Your task to perform on an android device: turn off data saver in the chrome app Image 0: 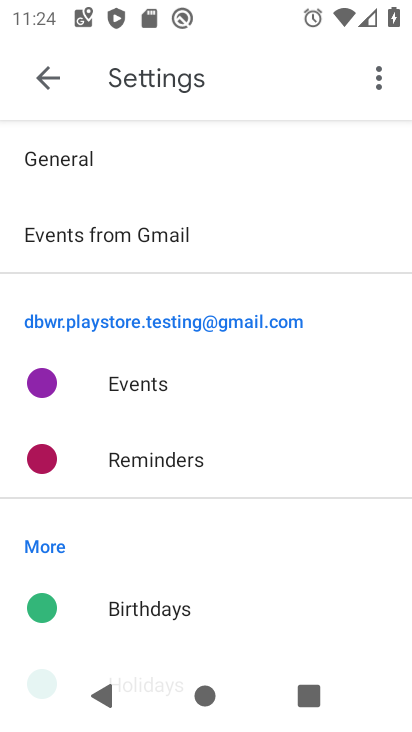
Step 0: press home button
Your task to perform on an android device: turn off data saver in the chrome app Image 1: 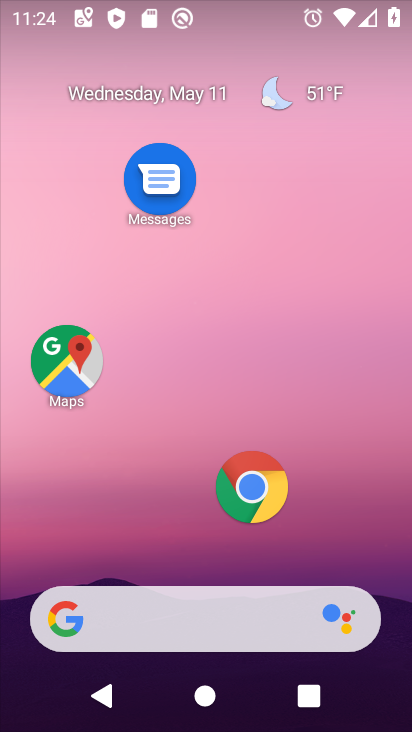
Step 1: click (253, 512)
Your task to perform on an android device: turn off data saver in the chrome app Image 2: 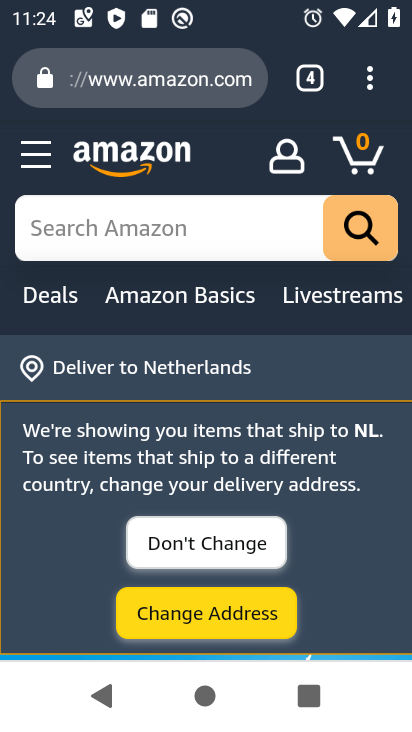
Step 2: drag from (367, 90) to (101, 537)
Your task to perform on an android device: turn off data saver in the chrome app Image 3: 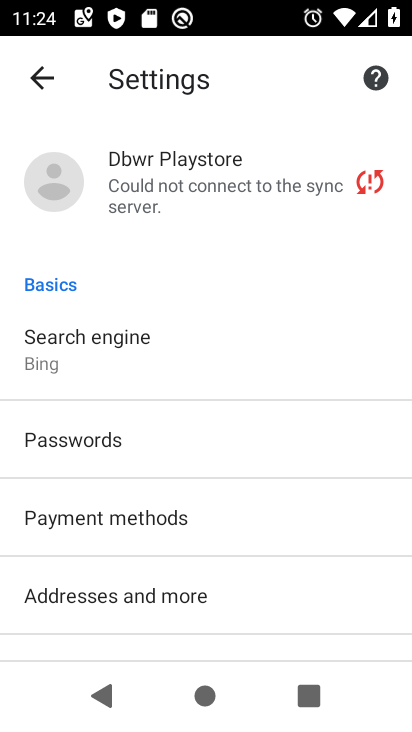
Step 3: drag from (184, 535) to (252, 297)
Your task to perform on an android device: turn off data saver in the chrome app Image 4: 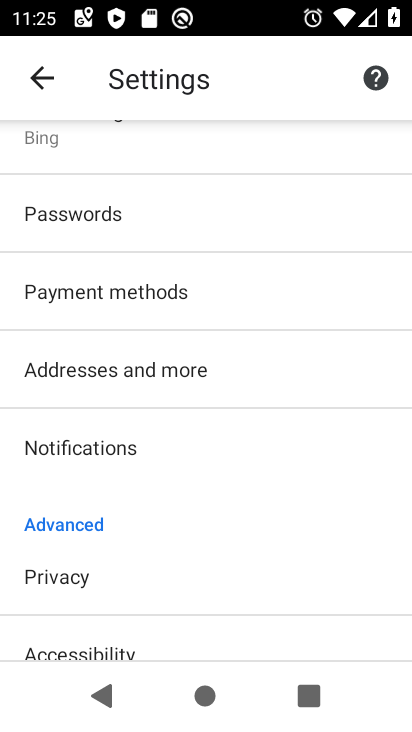
Step 4: drag from (196, 578) to (242, 397)
Your task to perform on an android device: turn off data saver in the chrome app Image 5: 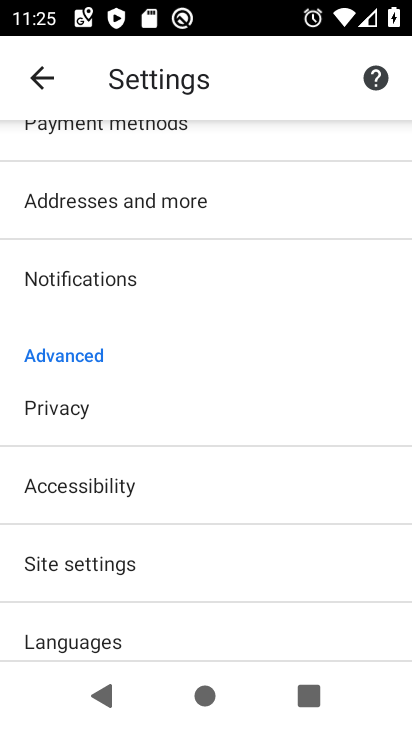
Step 5: drag from (178, 595) to (234, 358)
Your task to perform on an android device: turn off data saver in the chrome app Image 6: 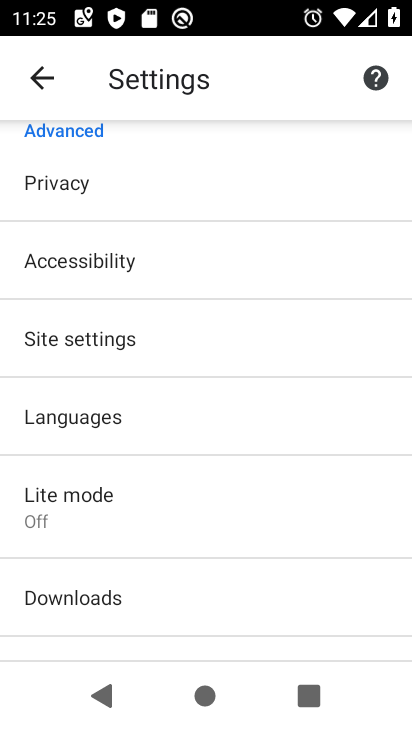
Step 6: click (155, 503)
Your task to perform on an android device: turn off data saver in the chrome app Image 7: 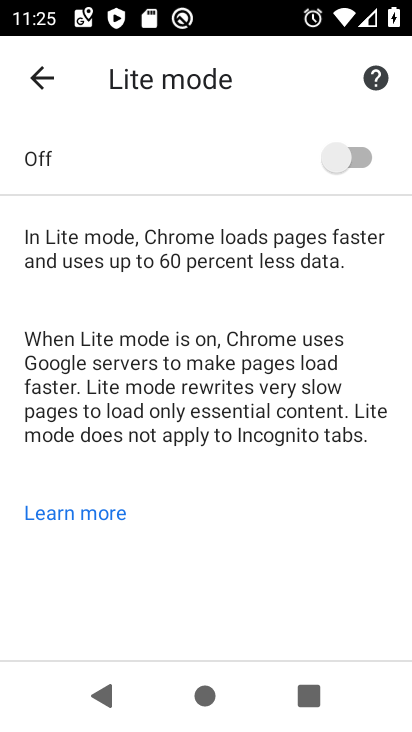
Step 7: task complete